Your task to perform on an android device: Search for "apple airpods" on newegg, select the first entry, add it to the cart, then select checkout. Image 0: 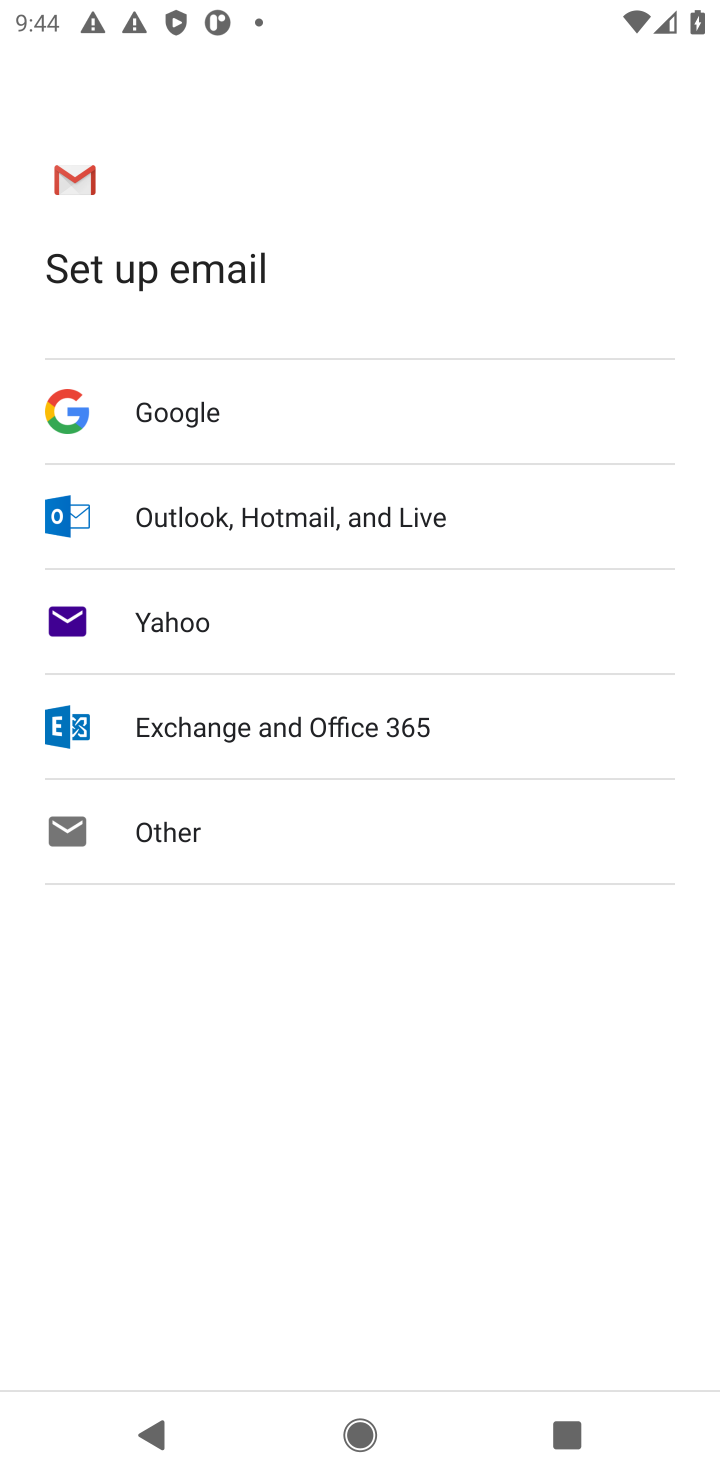
Step 0: press home button
Your task to perform on an android device: Search for "apple airpods" on newegg, select the first entry, add it to the cart, then select checkout. Image 1: 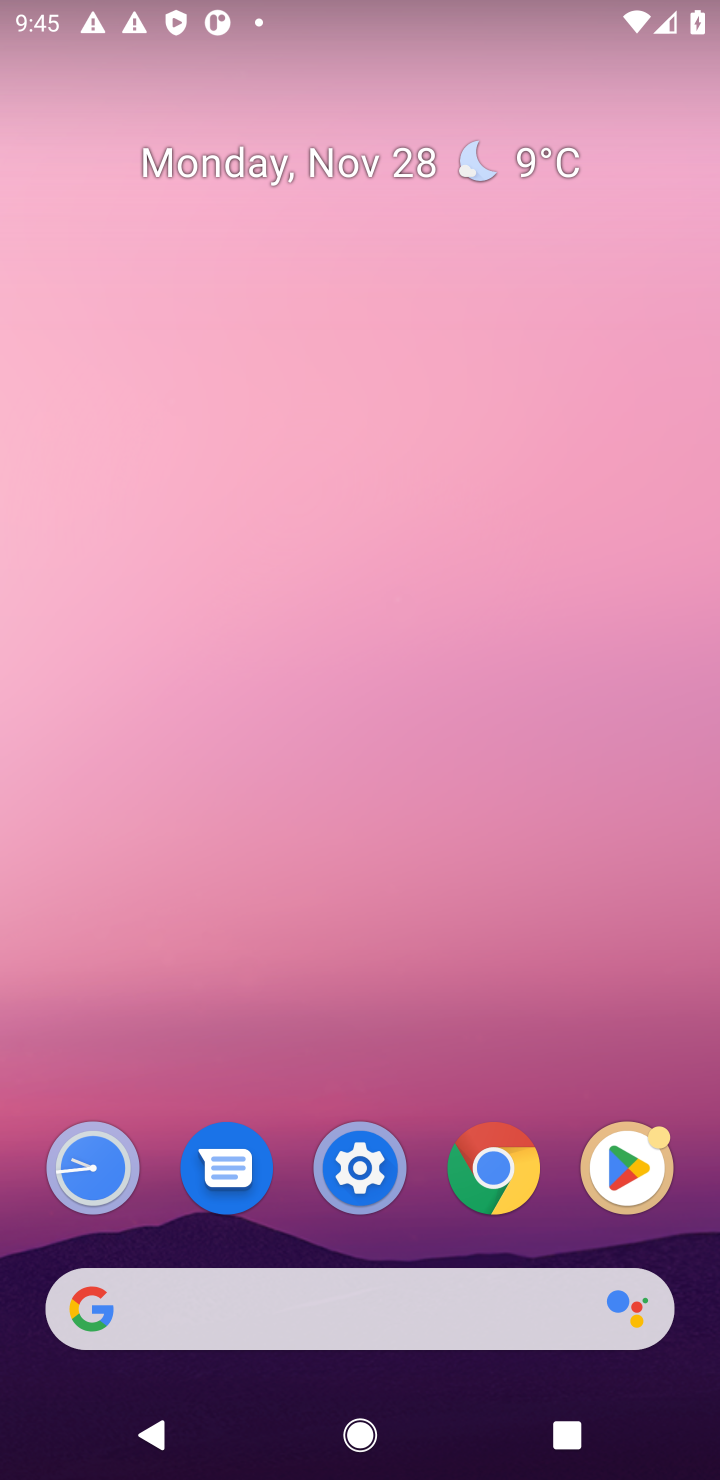
Step 1: click (432, 1315)
Your task to perform on an android device: Search for "apple airpods" on newegg, select the first entry, add it to the cart, then select checkout. Image 2: 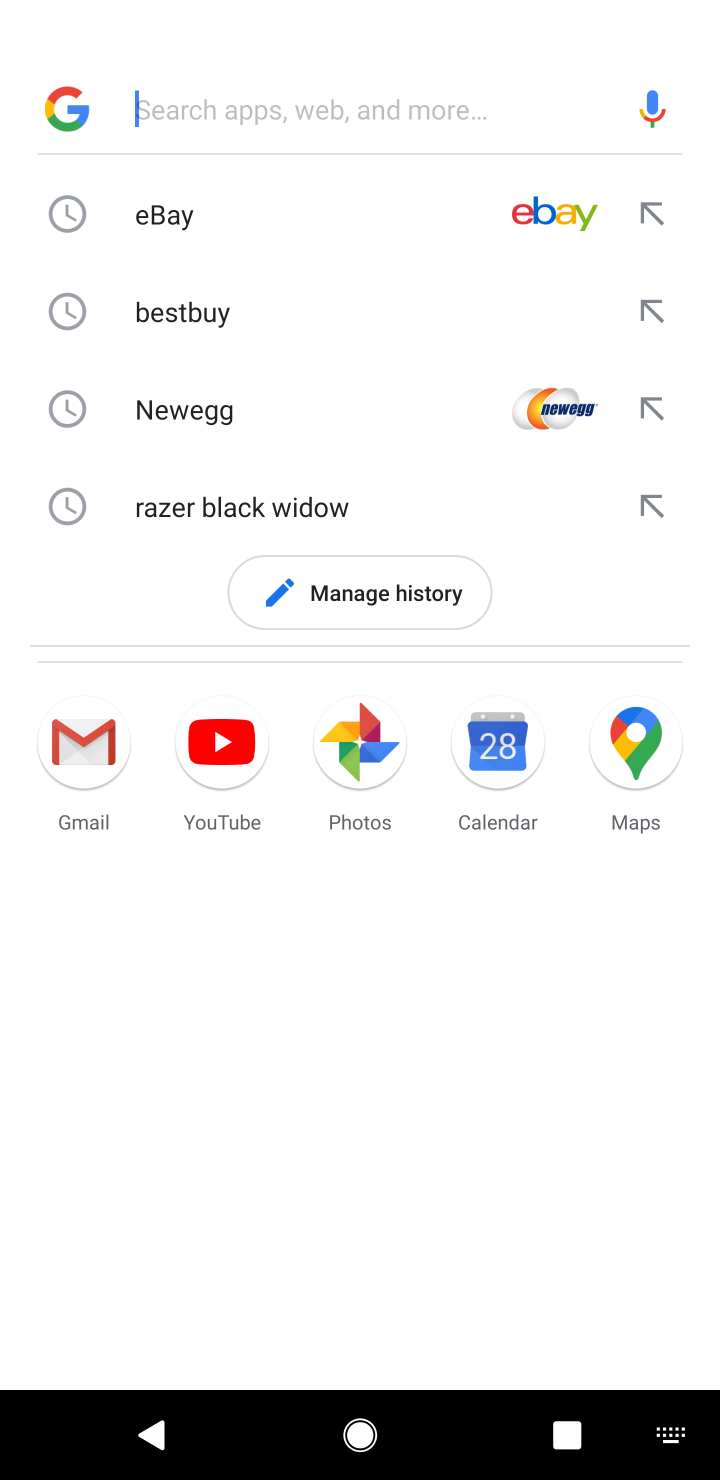
Step 2: type "newegg"
Your task to perform on an android device: Search for "apple airpods" on newegg, select the first entry, add it to the cart, then select checkout. Image 3: 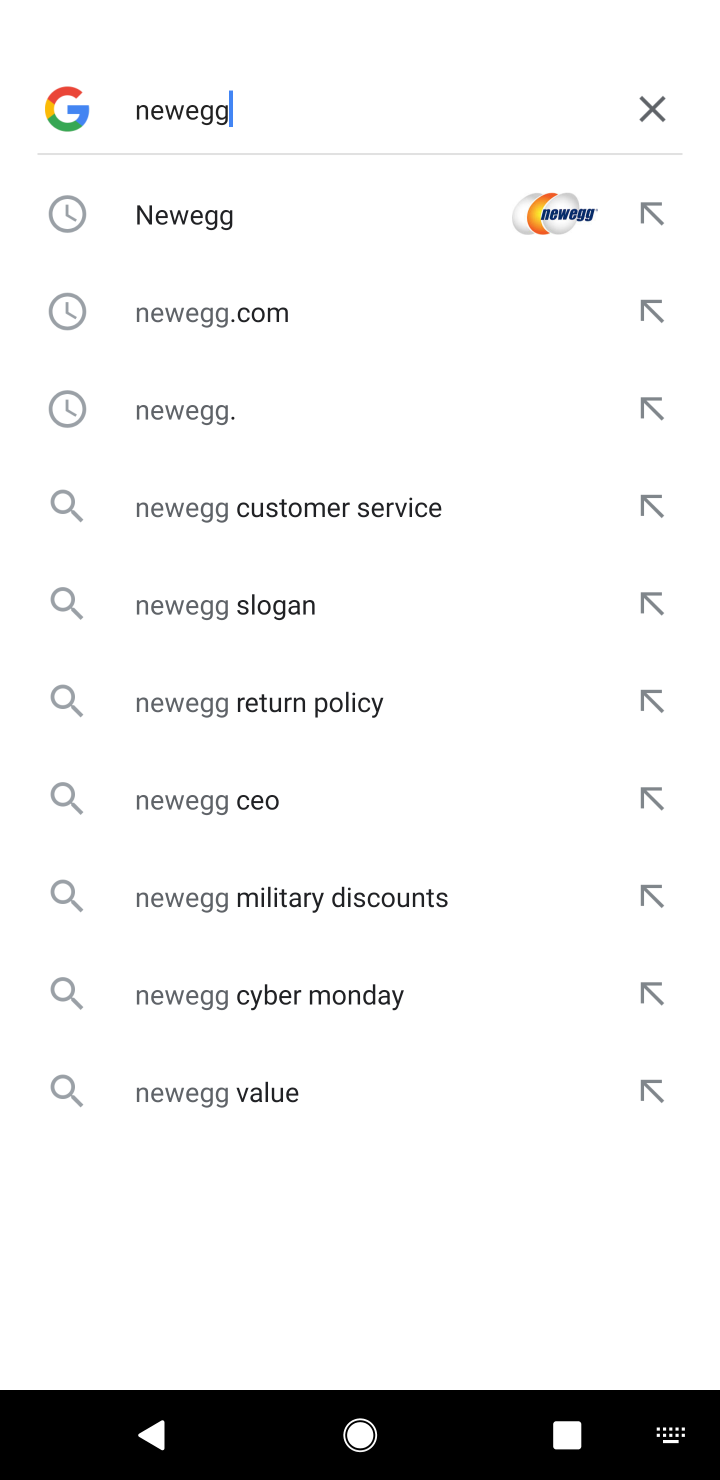
Step 3: click (164, 238)
Your task to perform on an android device: Search for "apple airpods" on newegg, select the first entry, add it to the cart, then select checkout. Image 4: 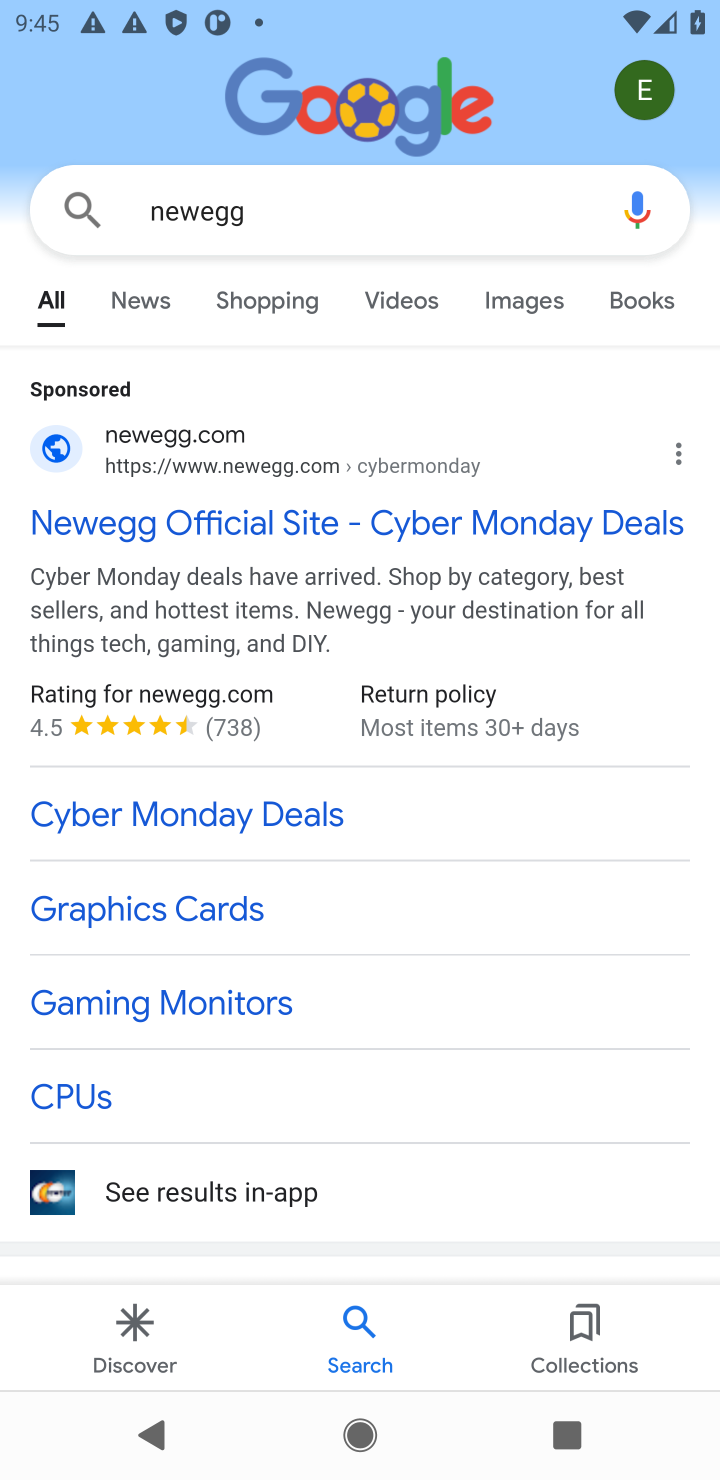
Step 4: click (273, 534)
Your task to perform on an android device: Search for "apple airpods" on newegg, select the first entry, add it to the cart, then select checkout. Image 5: 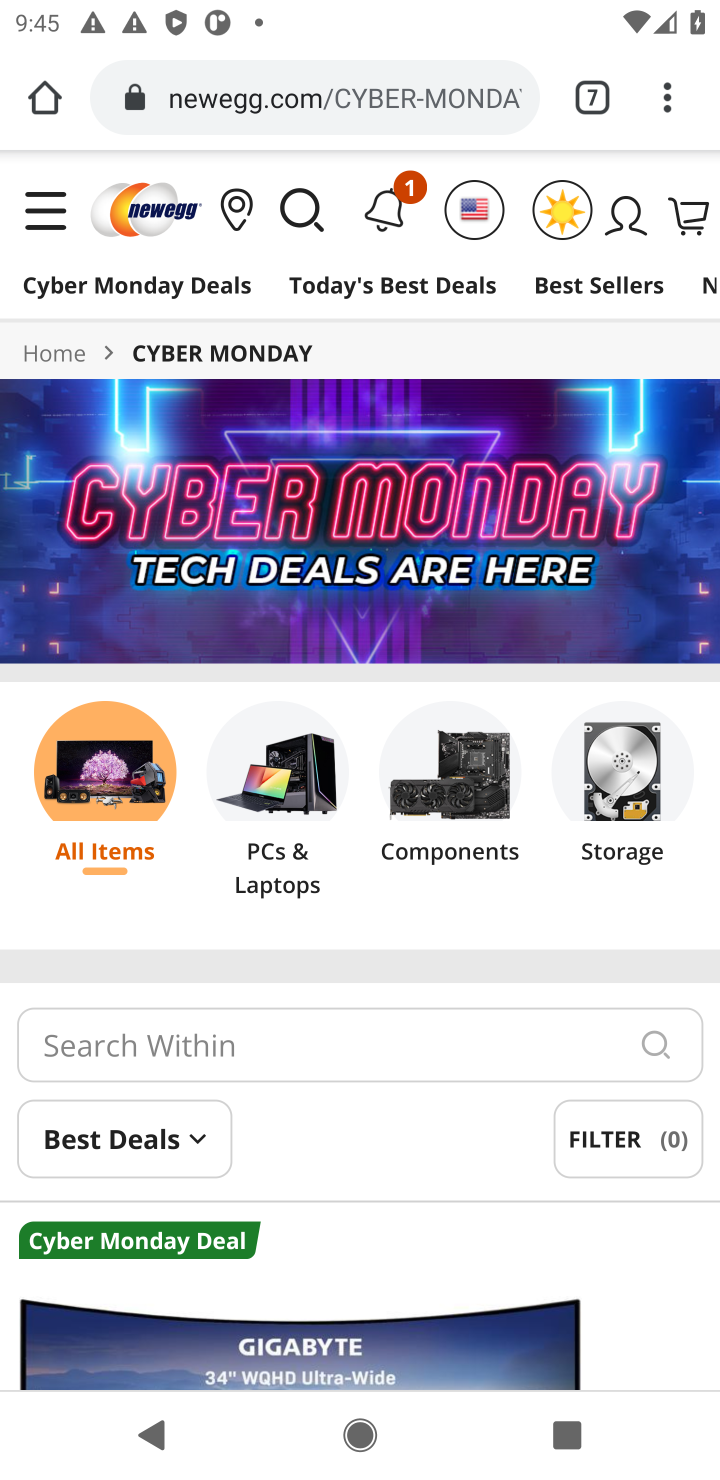
Step 5: click (278, 197)
Your task to perform on an android device: Search for "apple airpods" on newegg, select the first entry, add it to the cart, then select checkout. Image 6: 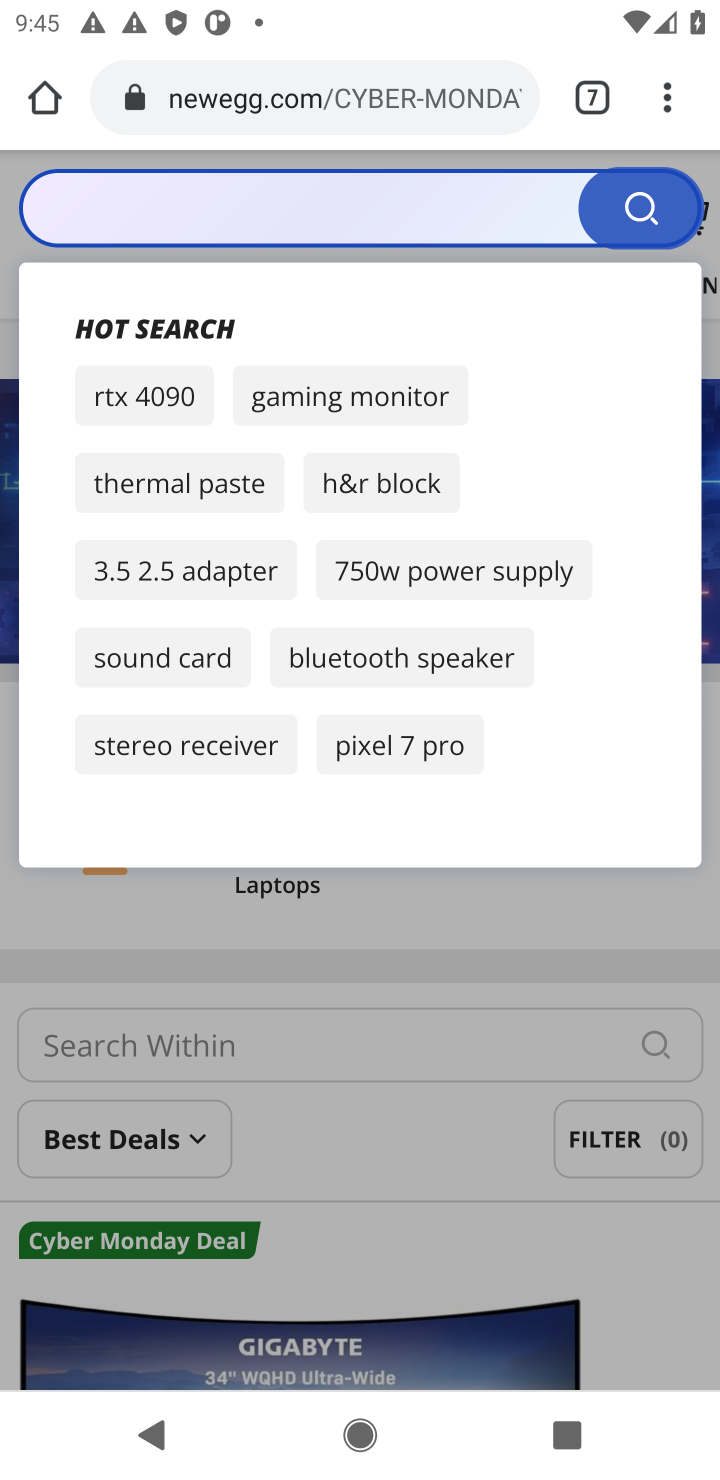
Step 6: type "apple airpod"
Your task to perform on an android device: Search for "apple airpods" on newegg, select the first entry, add it to the cart, then select checkout. Image 7: 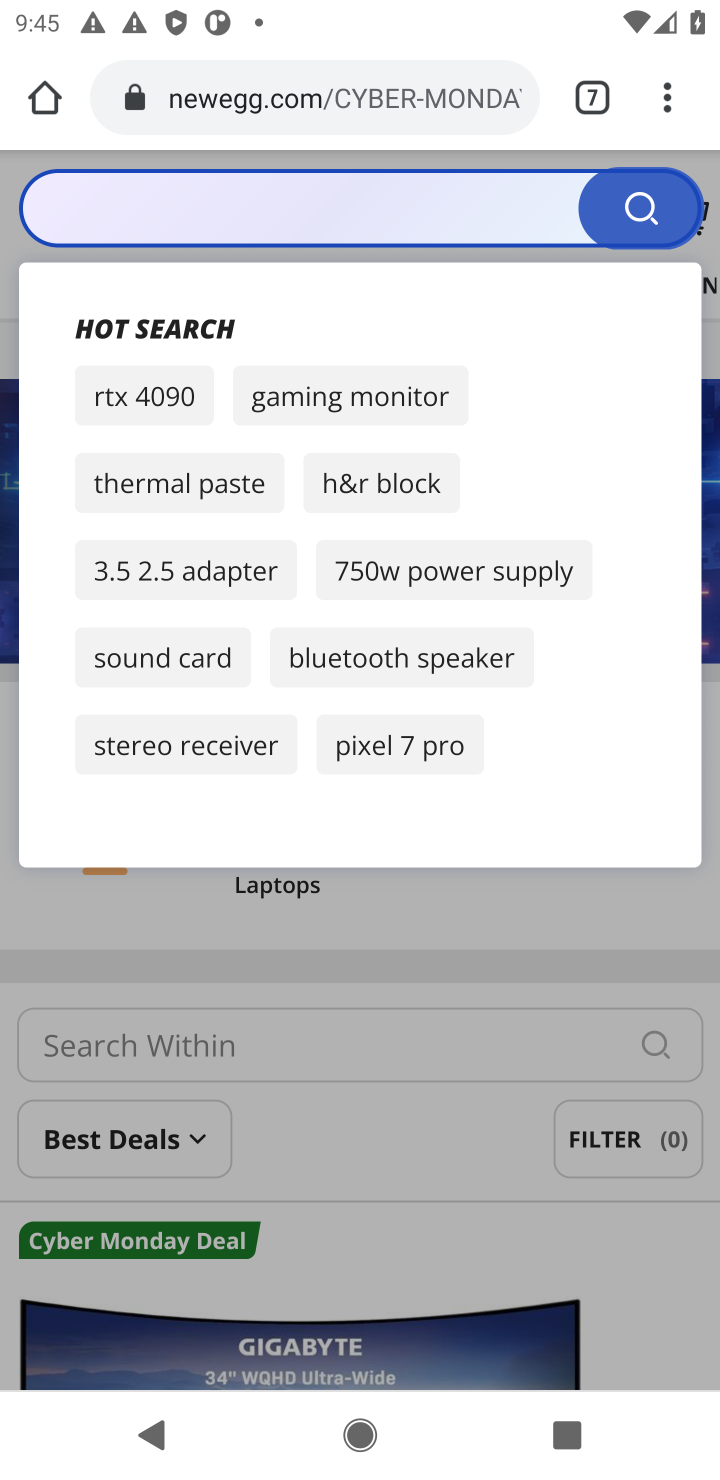
Step 7: task complete